Your task to perform on an android device: Open Youtube and go to "Your channel" Image 0: 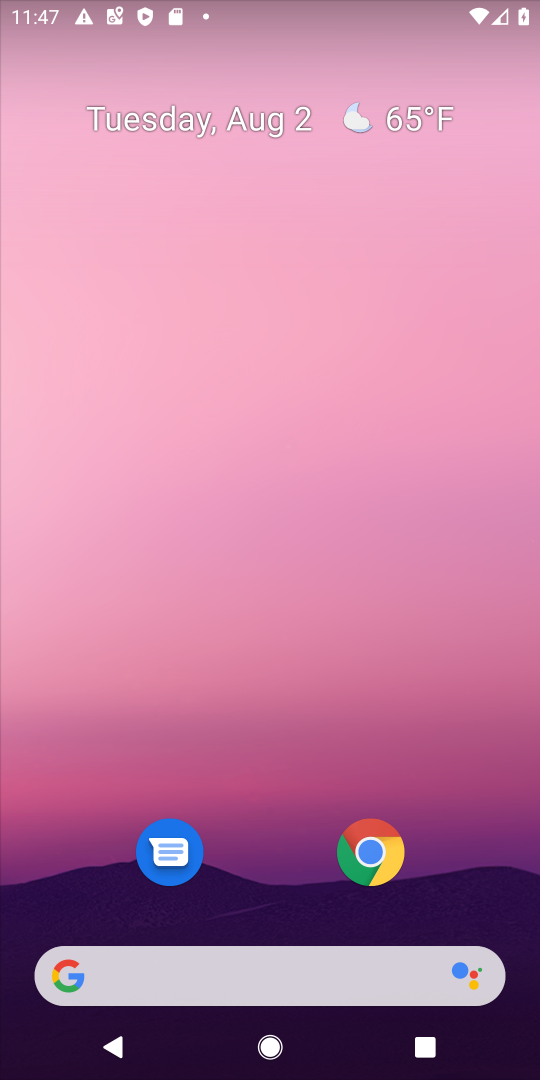
Step 0: drag from (503, 864) to (233, 104)
Your task to perform on an android device: Open Youtube and go to "Your channel" Image 1: 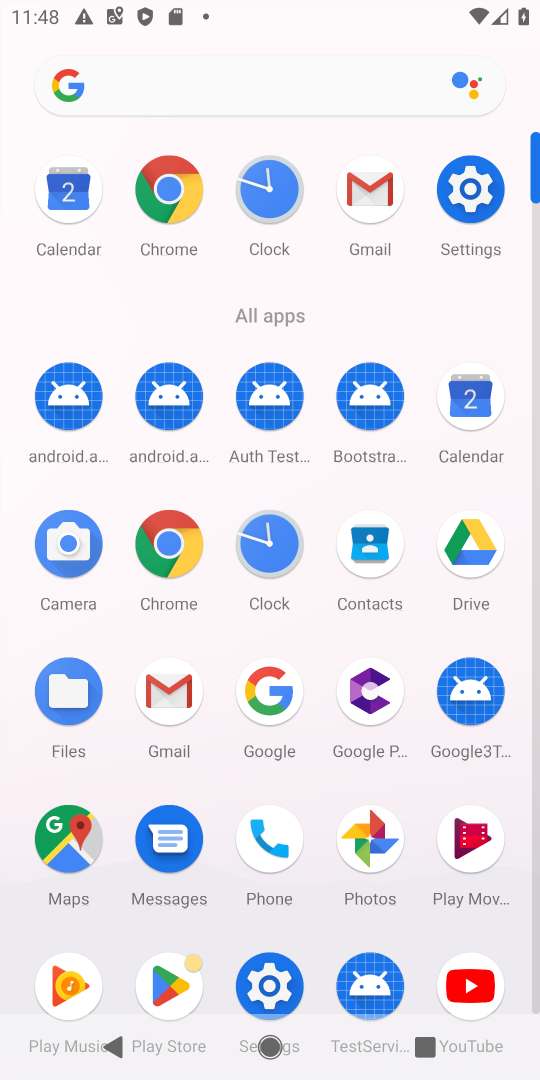
Step 1: click (465, 965)
Your task to perform on an android device: Open Youtube and go to "Your channel" Image 2: 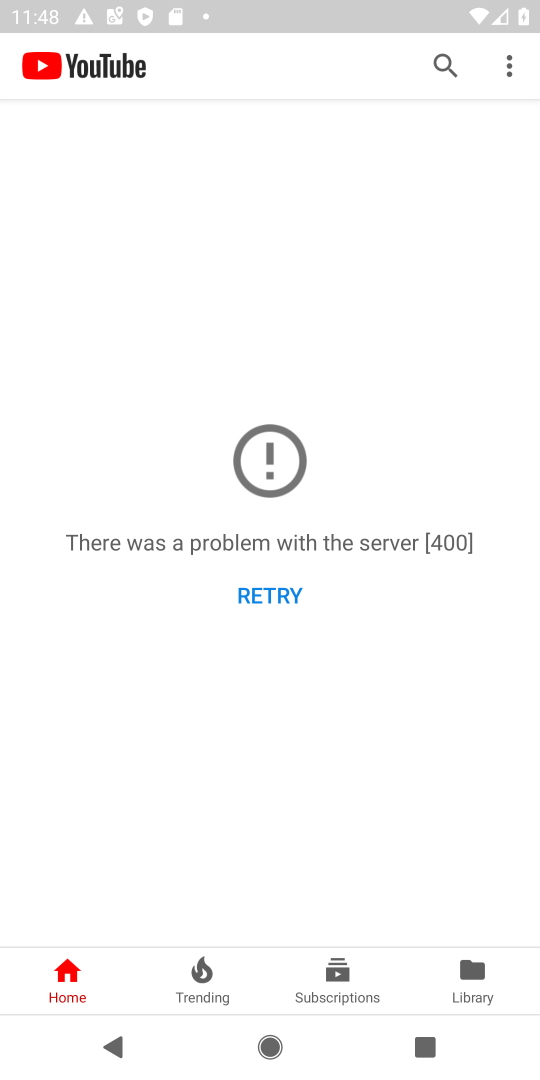
Step 2: click (262, 604)
Your task to perform on an android device: Open Youtube and go to "Your channel" Image 3: 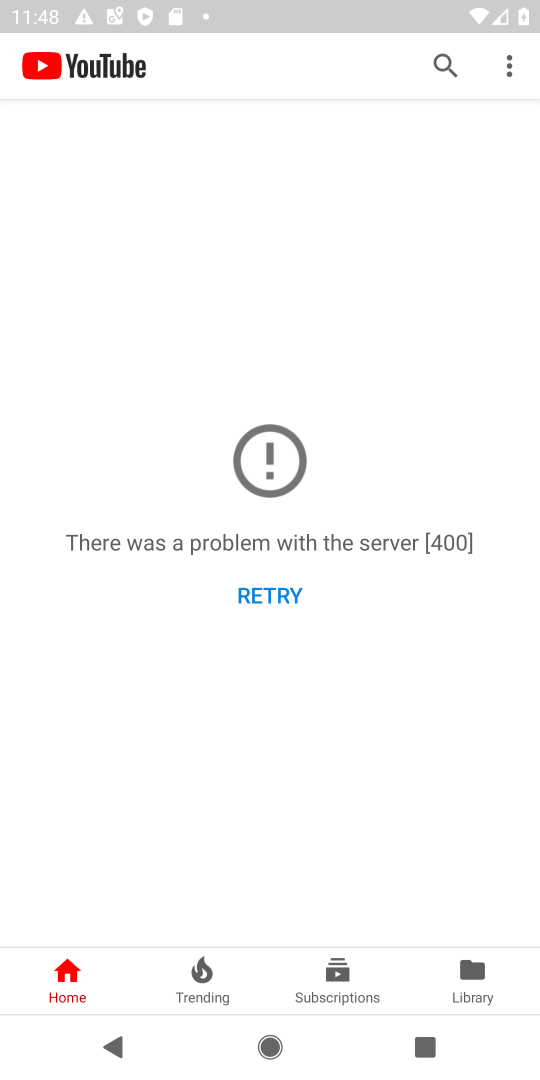
Step 3: task complete